Your task to perform on an android device: Play the last video I watched on Youtube Image 0: 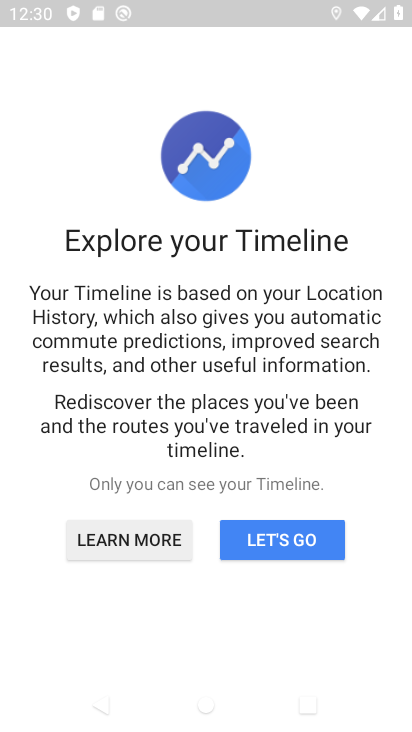
Step 0: click (267, 548)
Your task to perform on an android device: Play the last video I watched on Youtube Image 1: 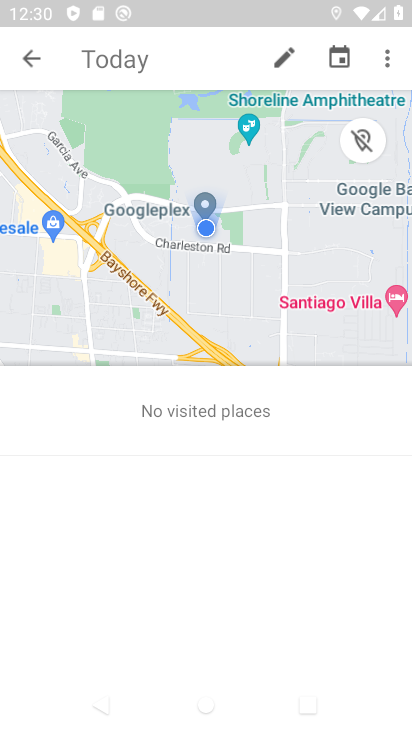
Step 1: press home button
Your task to perform on an android device: Play the last video I watched on Youtube Image 2: 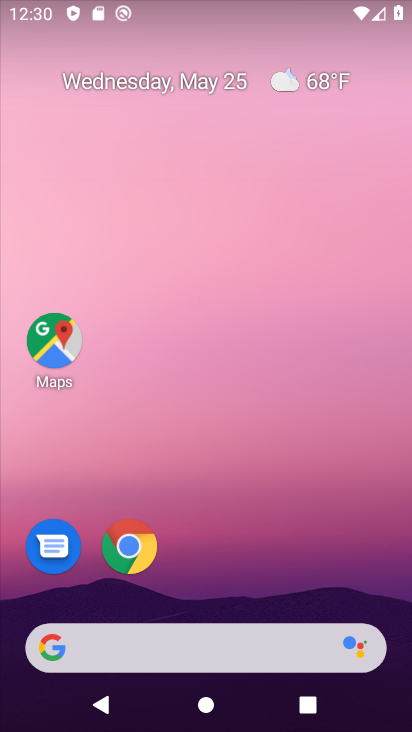
Step 2: drag from (252, 570) to (257, 225)
Your task to perform on an android device: Play the last video I watched on Youtube Image 3: 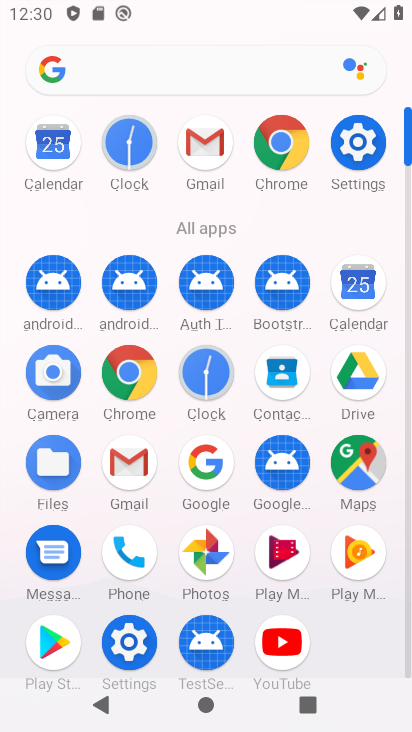
Step 3: click (295, 628)
Your task to perform on an android device: Play the last video I watched on Youtube Image 4: 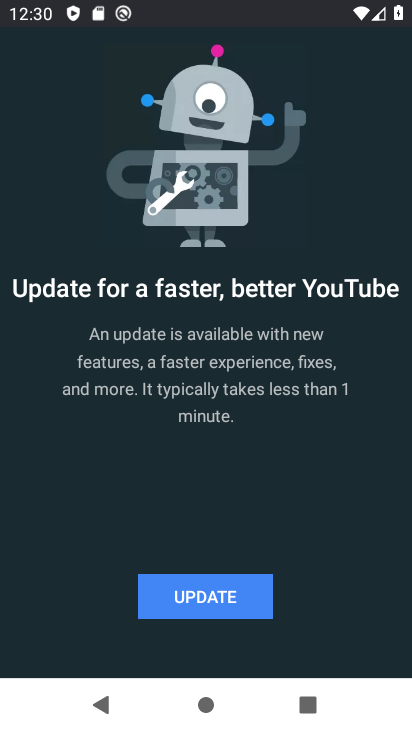
Step 4: click (249, 597)
Your task to perform on an android device: Play the last video I watched on Youtube Image 5: 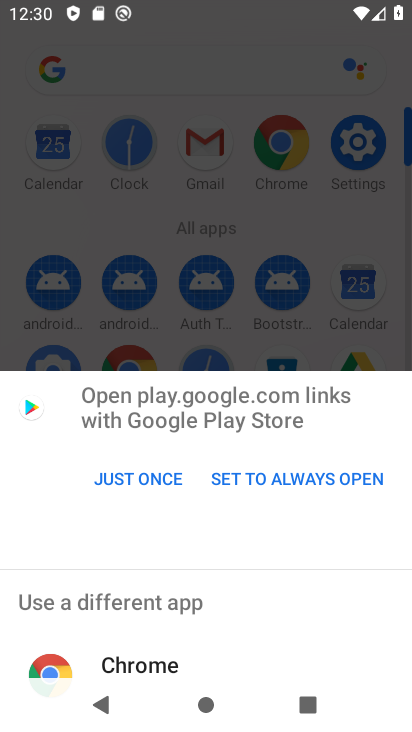
Step 5: click (127, 478)
Your task to perform on an android device: Play the last video I watched on Youtube Image 6: 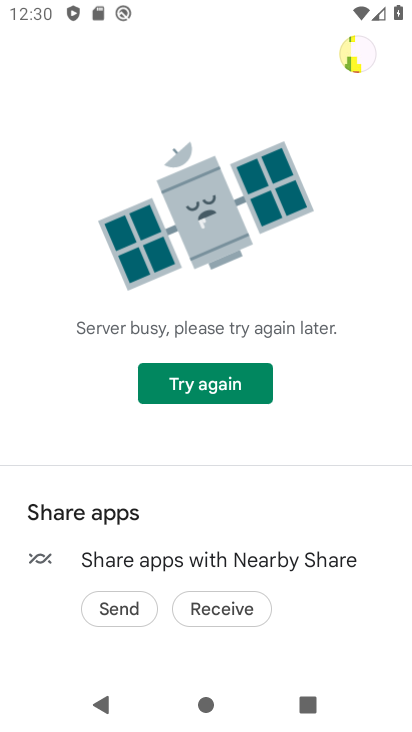
Step 6: click (203, 402)
Your task to perform on an android device: Play the last video I watched on Youtube Image 7: 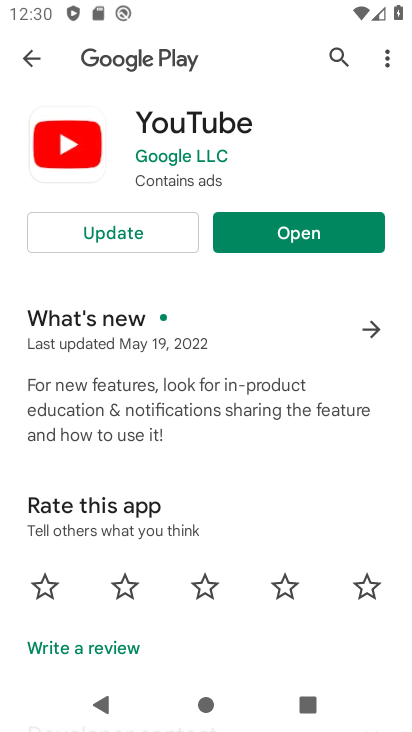
Step 7: click (111, 233)
Your task to perform on an android device: Play the last video I watched on Youtube Image 8: 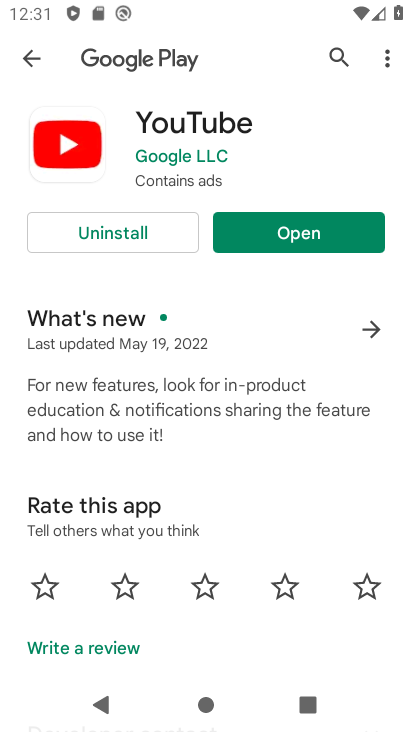
Step 8: click (326, 218)
Your task to perform on an android device: Play the last video I watched on Youtube Image 9: 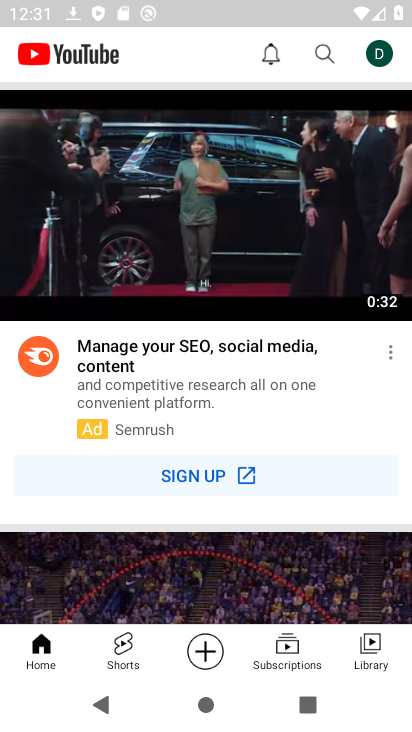
Step 9: click (379, 642)
Your task to perform on an android device: Play the last video I watched on Youtube Image 10: 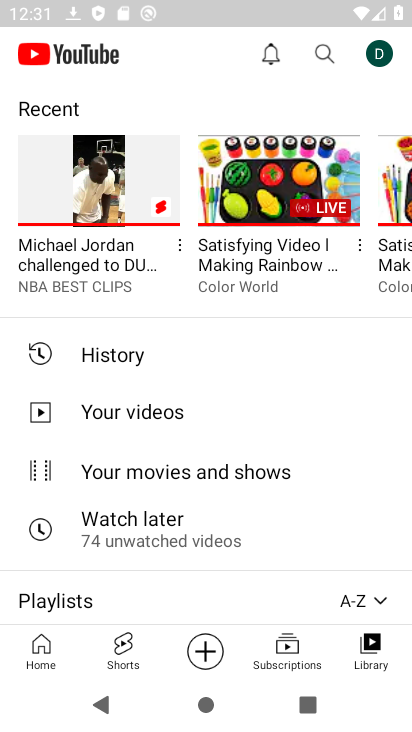
Step 10: click (116, 232)
Your task to perform on an android device: Play the last video I watched on Youtube Image 11: 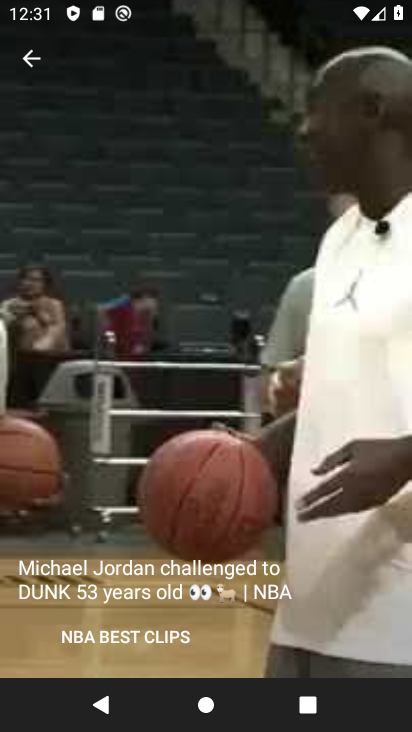
Step 11: task complete